Your task to perform on an android device: show emergency info Image 0: 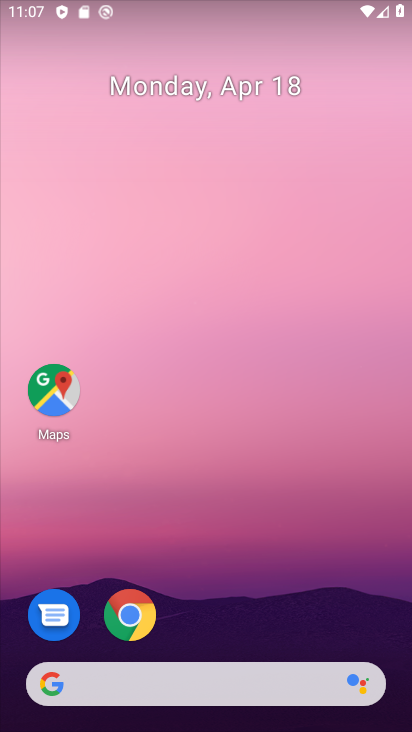
Step 0: drag from (356, 616) to (353, 95)
Your task to perform on an android device: show emergency info Image 1: 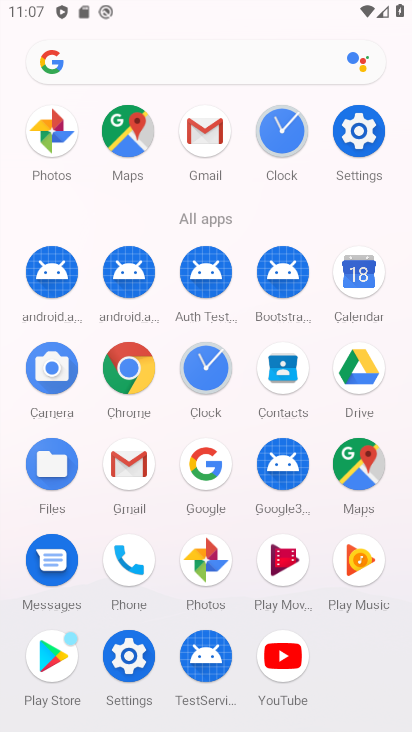
Step 1: click (353, 133)
Your task to perform on an android device: show emergency info Image 2: 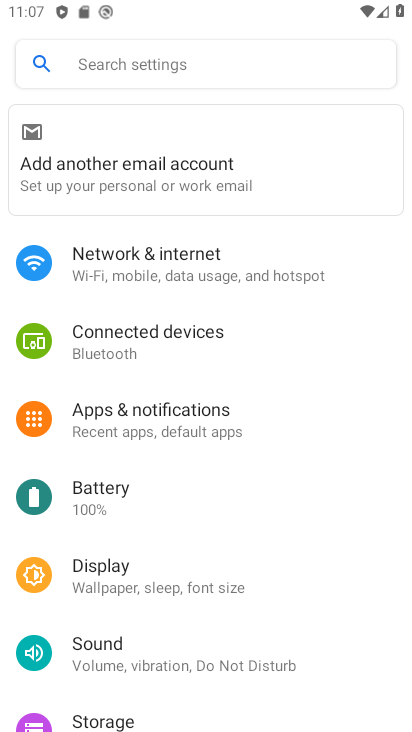
Step 2: drag from (358, 578) to (358, 315)
Your task to perform on an android device: show emergency info Image 3: 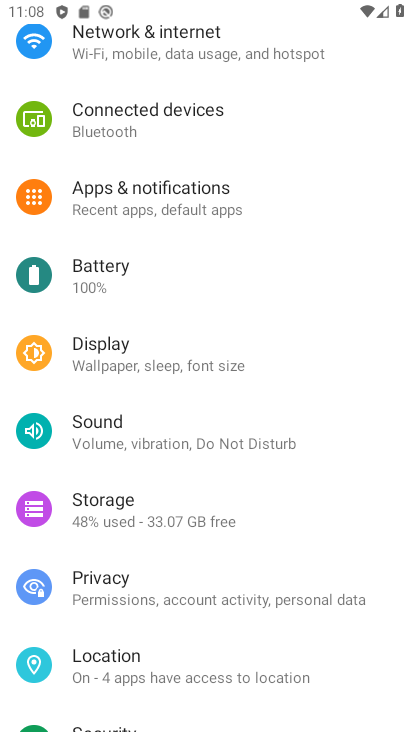
Step 3: drag from (375, 627) to (374, 328)
Your task to perform on an android device: show emergency info Image 4: 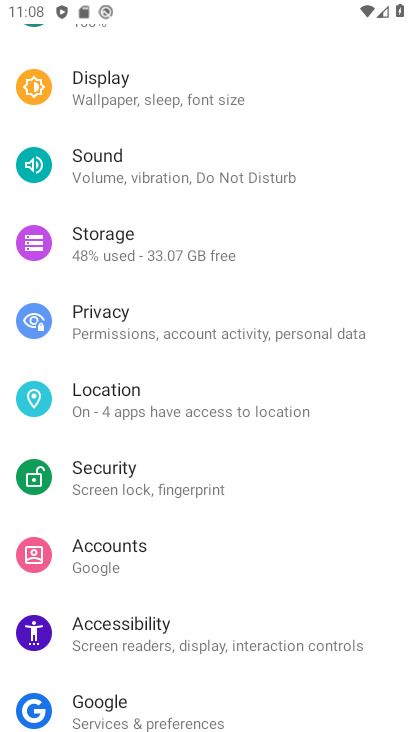
Step 4: drag from (373, 519) to (384, 341)
Your task to perform on an android device: show emergency info Image 5: 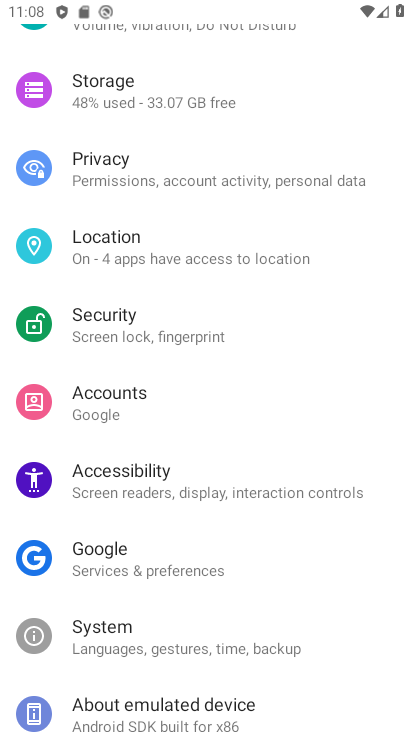
Step 5: drag from (373, 583) to (377, 358)
Your task to perform on an android device: show emergency info Image 6: 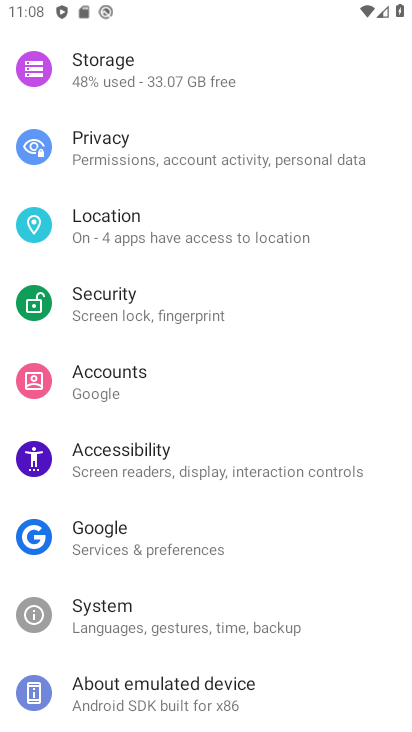
Step 6: click (214, 689)
Your task to perform on an android device: show emergency info Image 7: 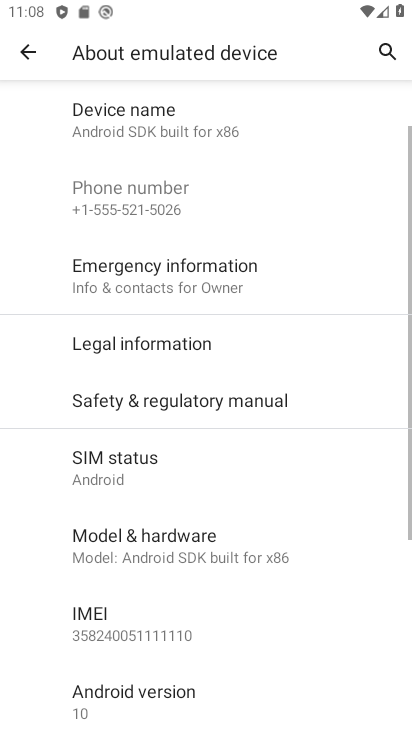
Step 7: click (245, 267)
Your task to perform on an android device: show emergency info Image 8: 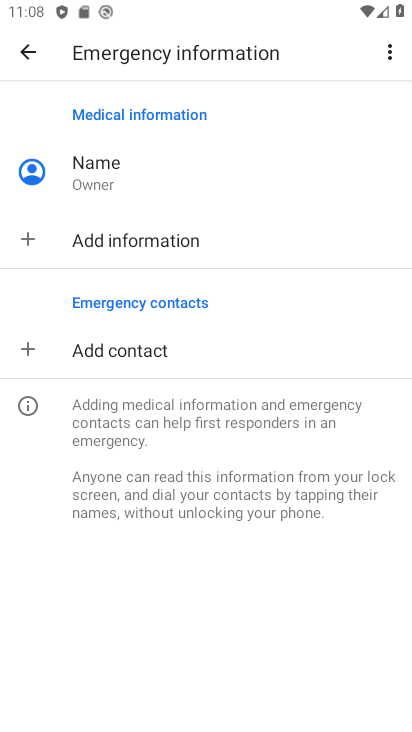
Step 8: task complete